Your task to perform on an android device: What's on my calendar today? Image 0: 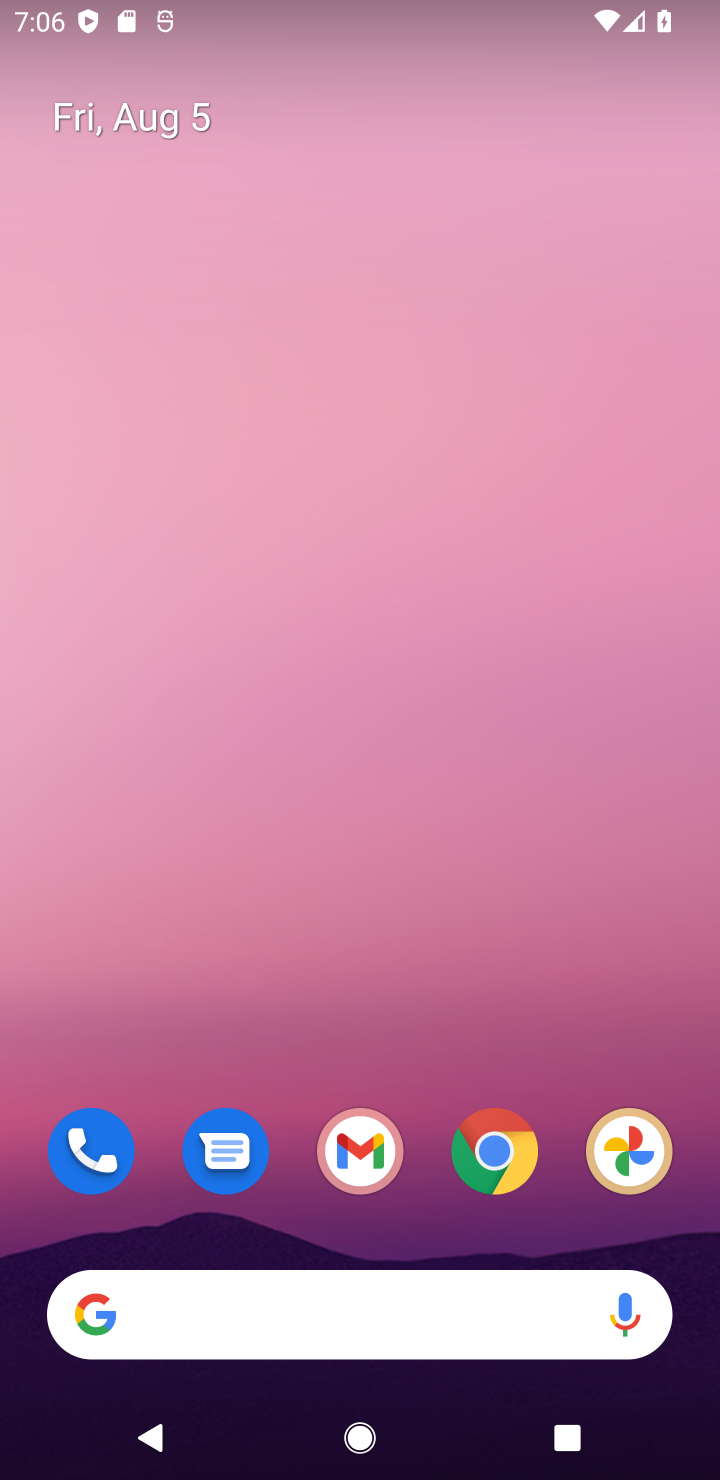
Step 0: drag from (388, 1223) to (304, 1438)
Your task to perform on an android device: What's on my calendar today? Image 1: 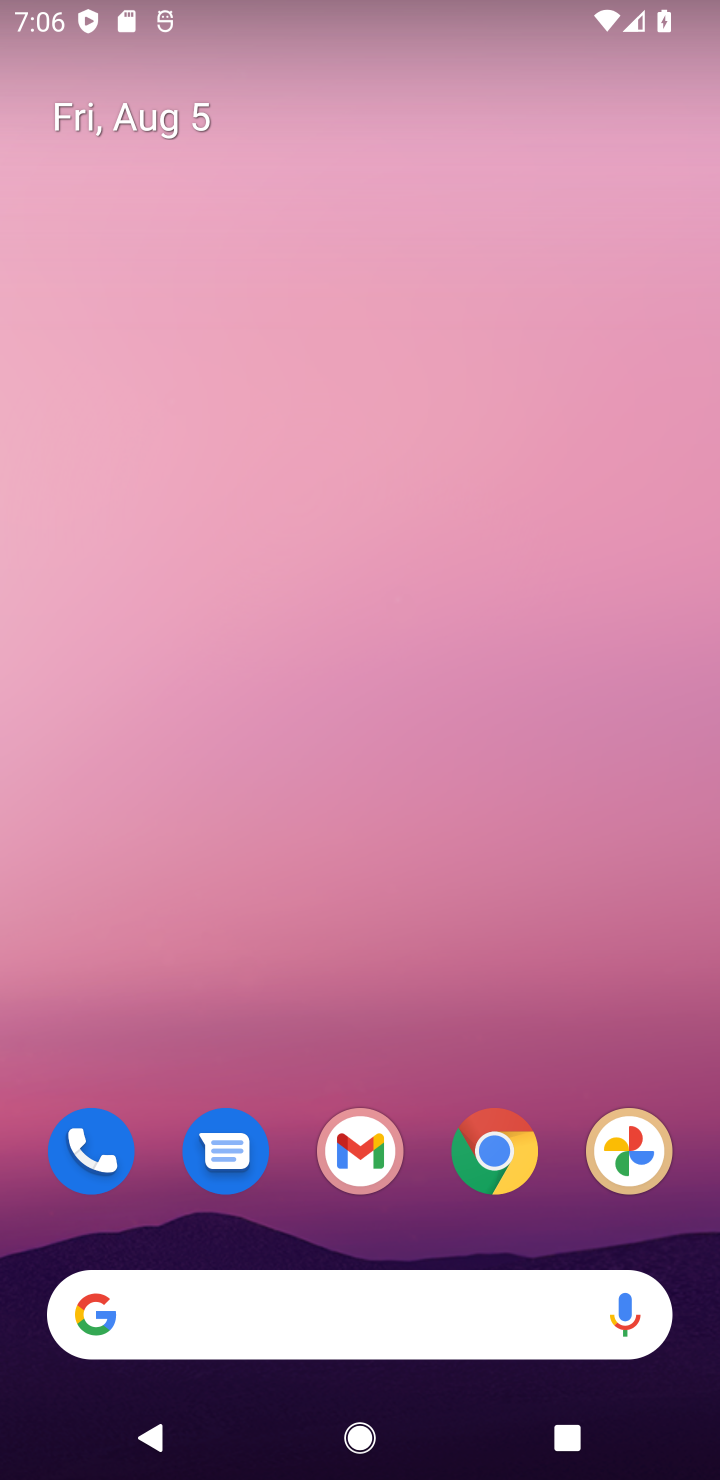
Step 1: drag from (381, 1212) to (349, 4)
Your task to perform on an android device: What's on my calendar today? Image 2: 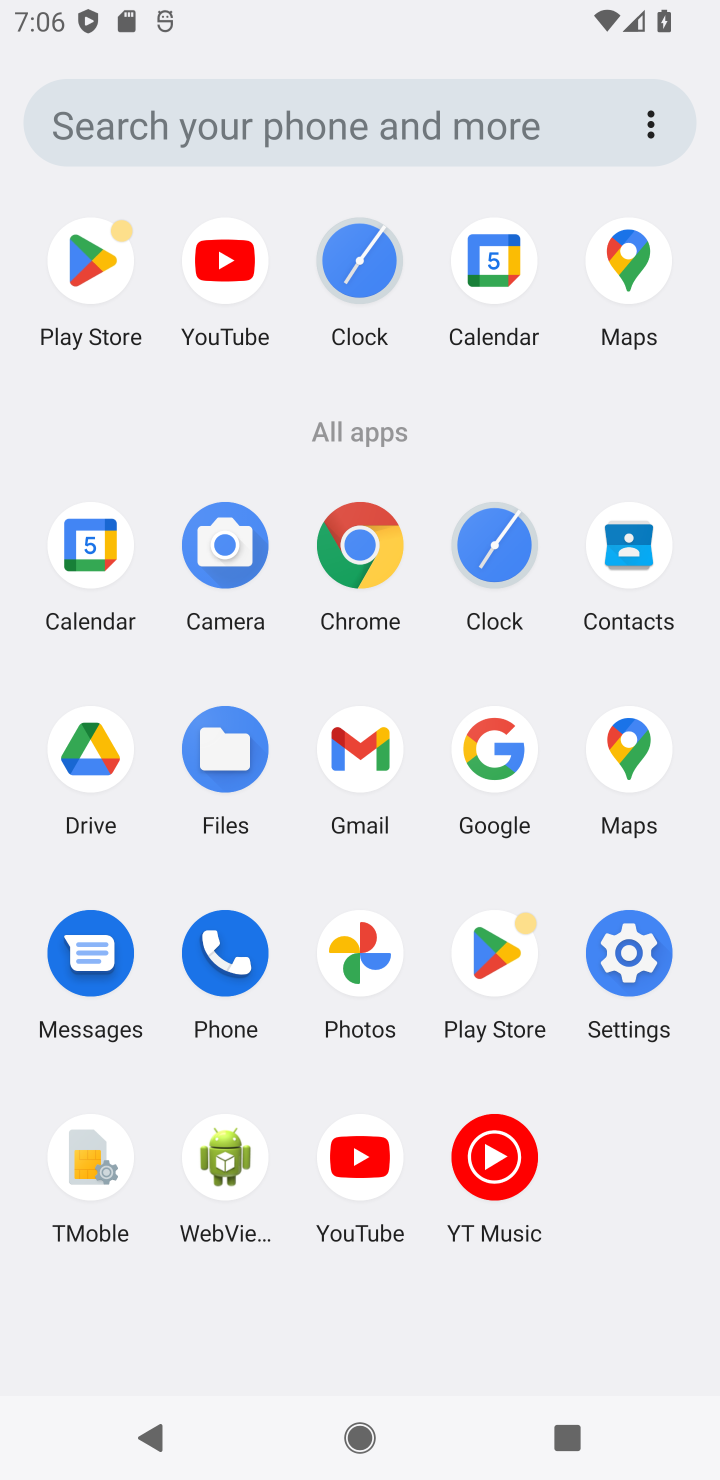
Step 2: click (104, 559)
Your task to perform on an android device: What's on my calendar today? Image 3: 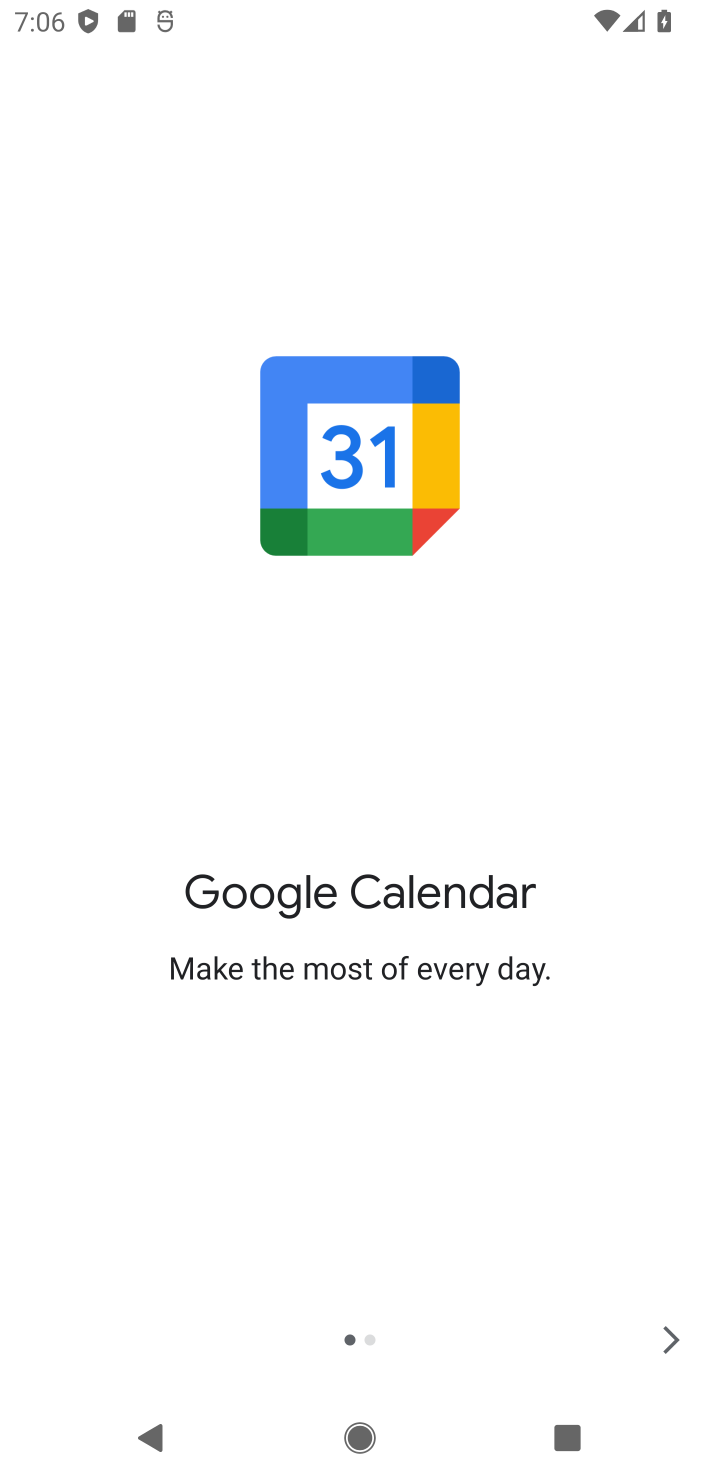
Step 3: click (674, 1350)
Your task to perform on an android device: What's on my calendar today? Image 4: 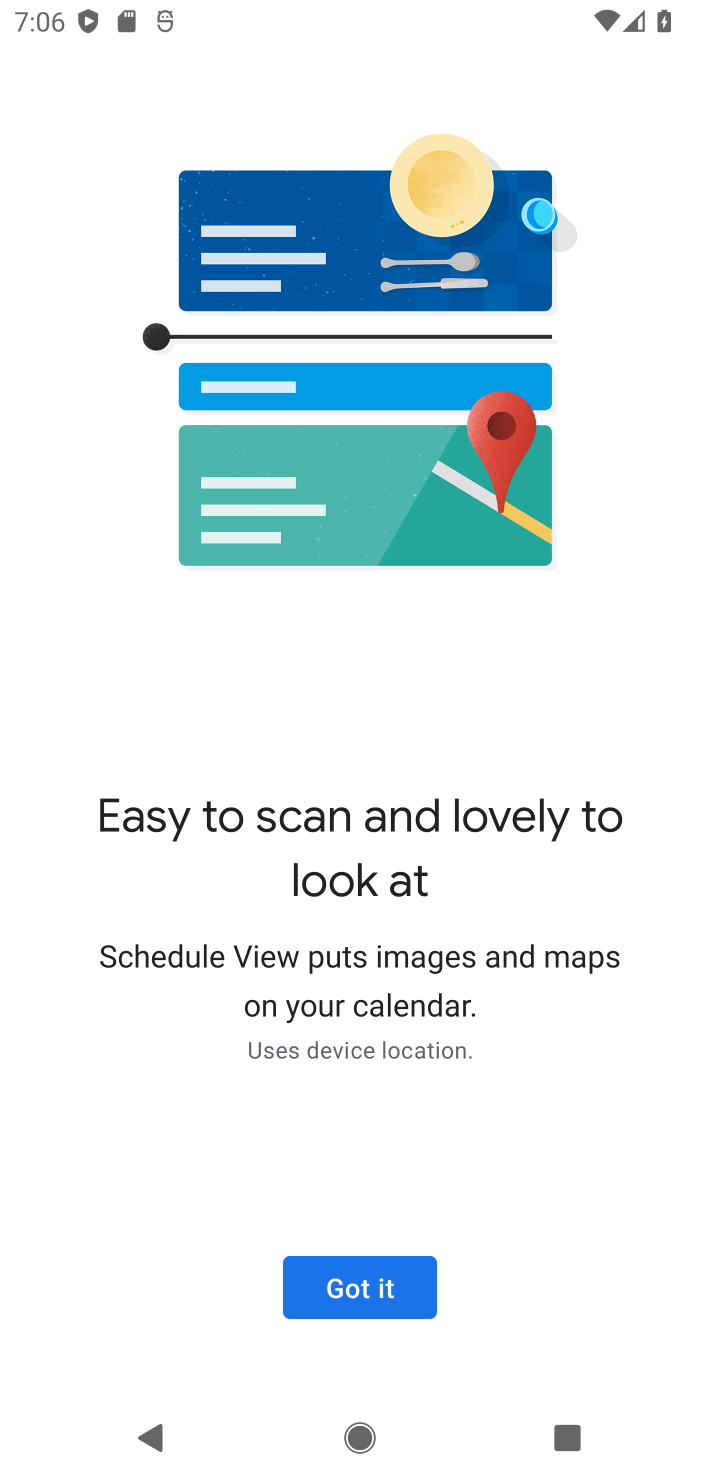
Step 4: click (405, 1284)
Your task to perform on an android device: What's on my calendar today? Image 5: 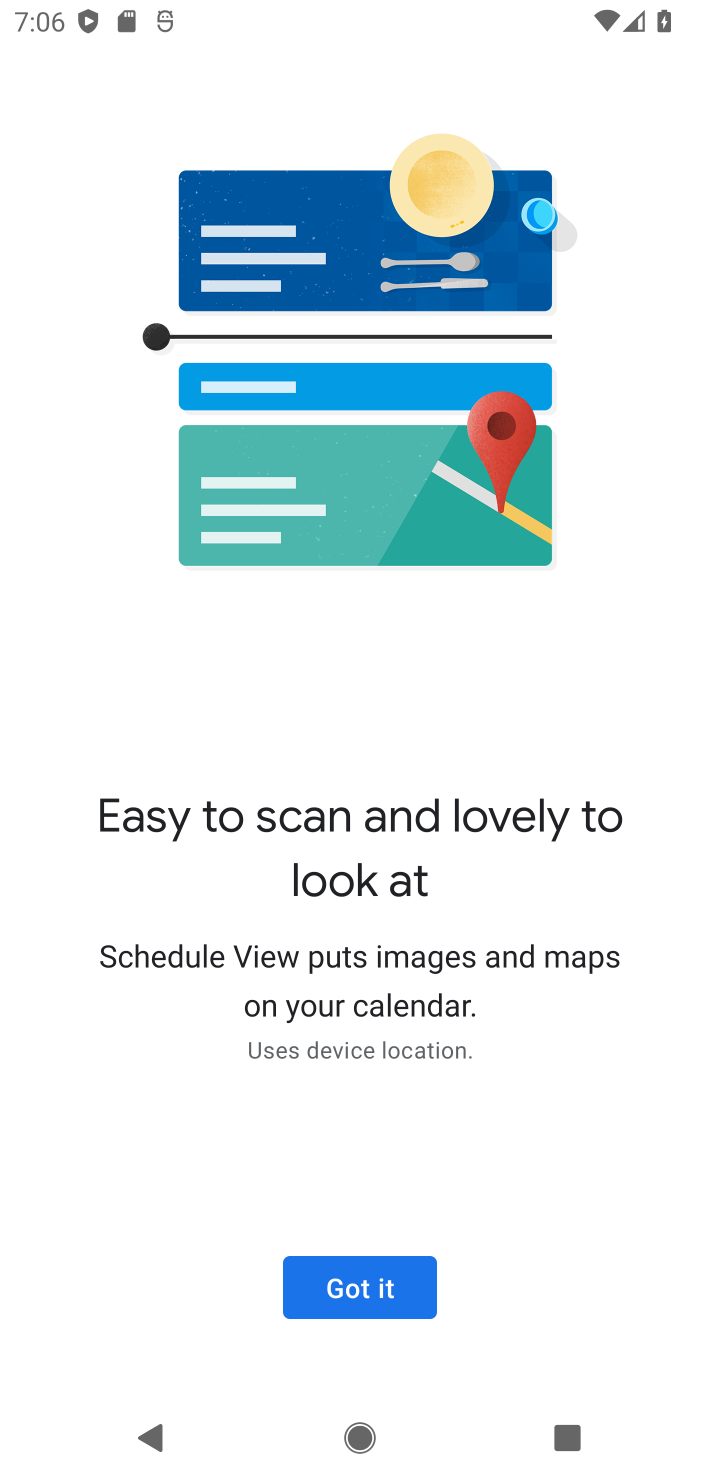
Step 5: click (405, 1284)
Your task to perform on an android device: What's on my calendar today? Image 6: 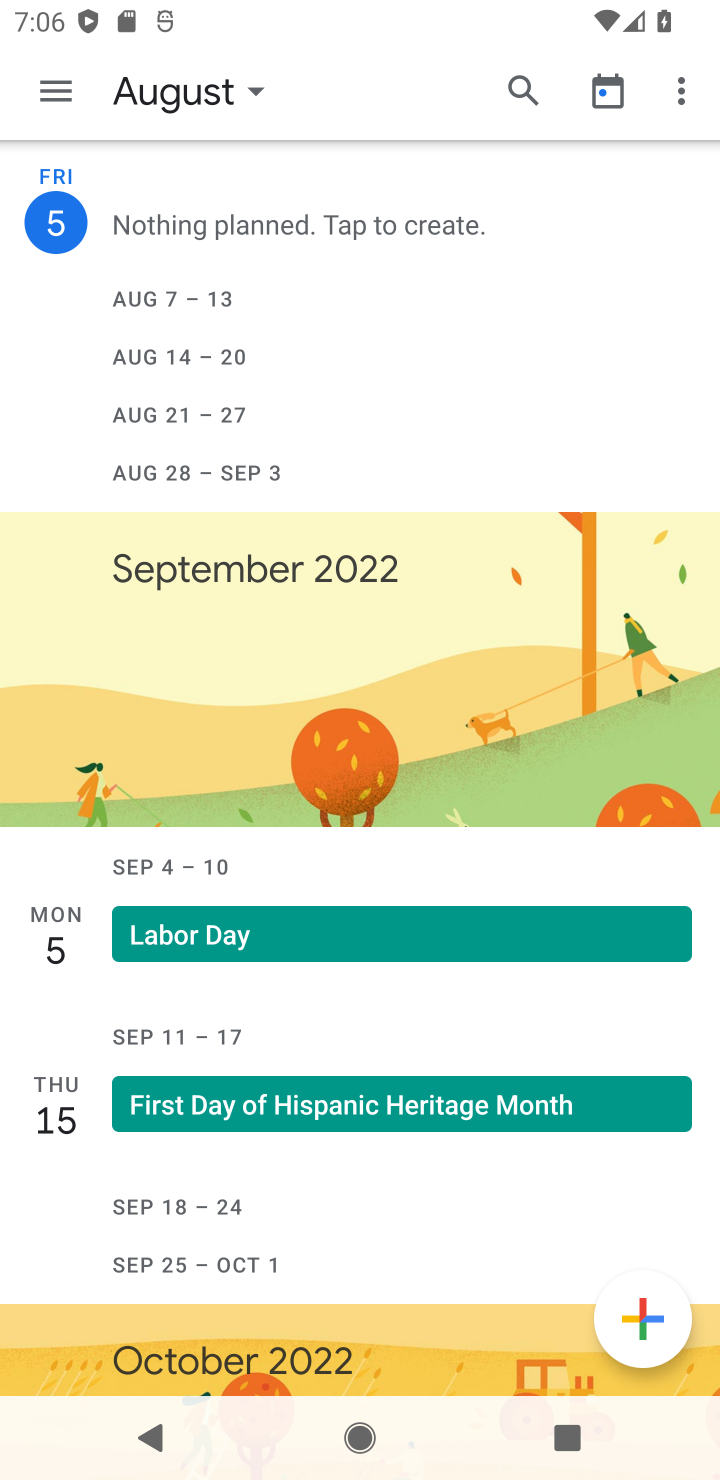
Step 6: click (13, 214)
Your task to perform on an android device: What's on my calendar today? Image 7: 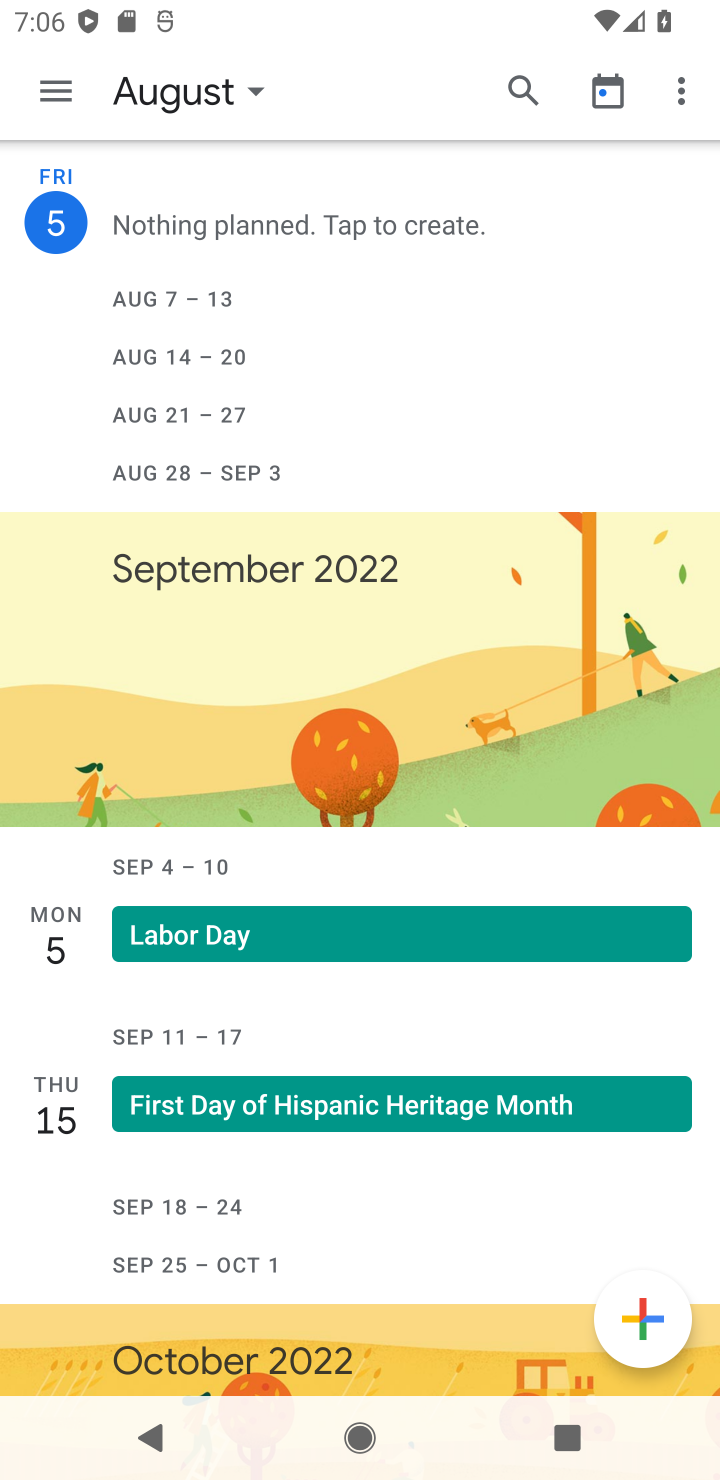
Step 7: task complete